Your task to perform on an android device: Open eBay Image 0: 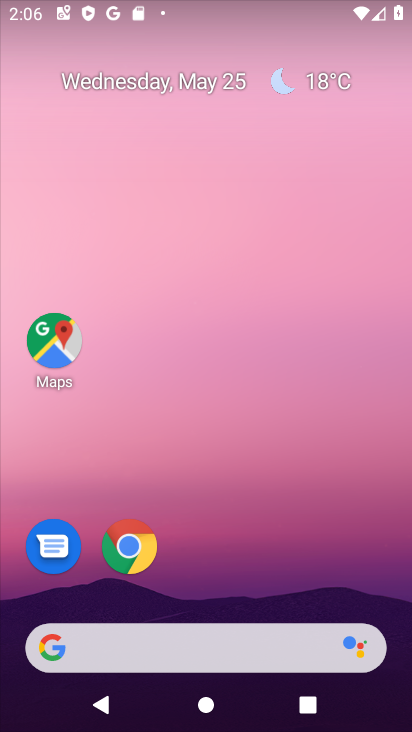
Step 0: drag from (242, 539) to (274, 14)
Your task to perform on an android device: Open eBay Image 1: 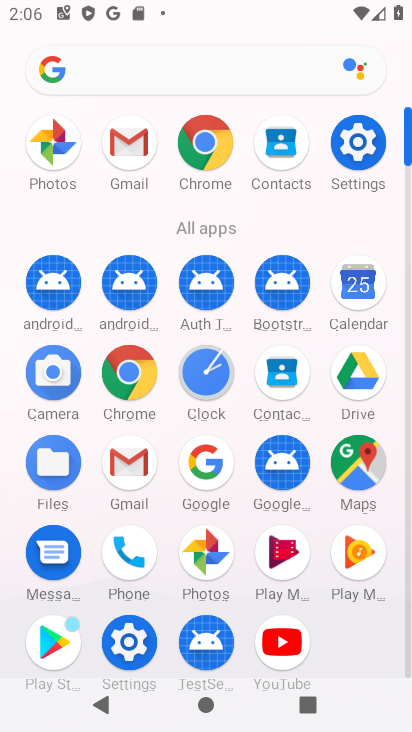
Step 1: click (225, 157)
Your task to perform on an android device: Open eBay Image 2: 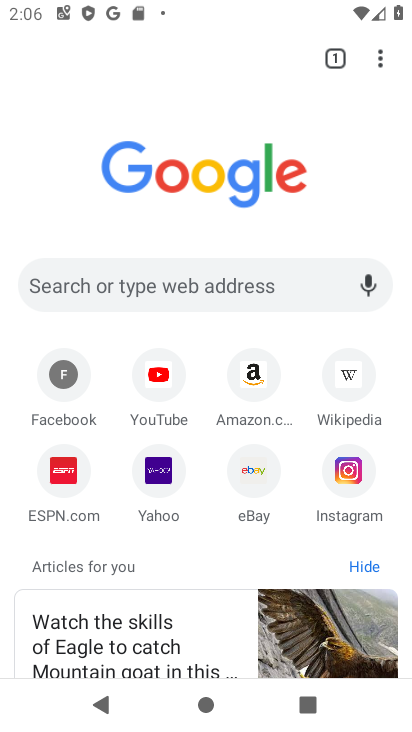
Step 2: click (258, 491)
Your task to perform on an android device: Open eBay Image 3: 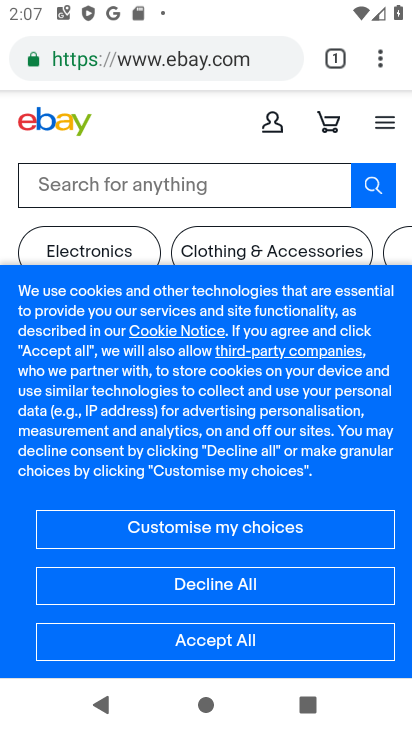
Step 3: task complete